Your task to perform on an android device: open app "LiveIn - Share Your Moment" (install if not already installed) and go to login screen Image 0: 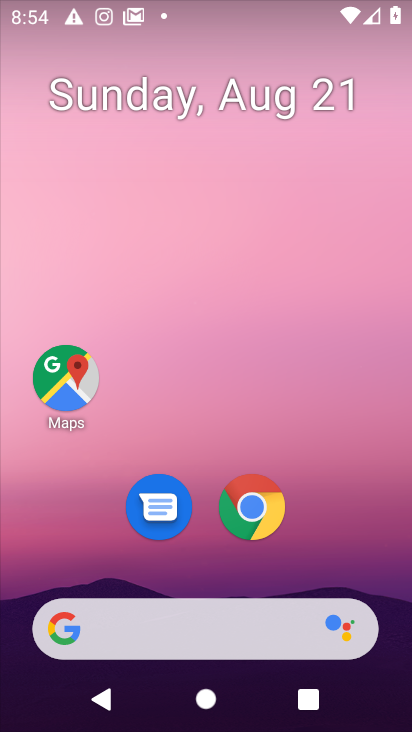
Step 0: drag from (212, 567) to (264, 127)
Your task to perform on an android device: open app "LiveIn - Share Your Moment" (install if not already installed) and go to login screen Image 1: 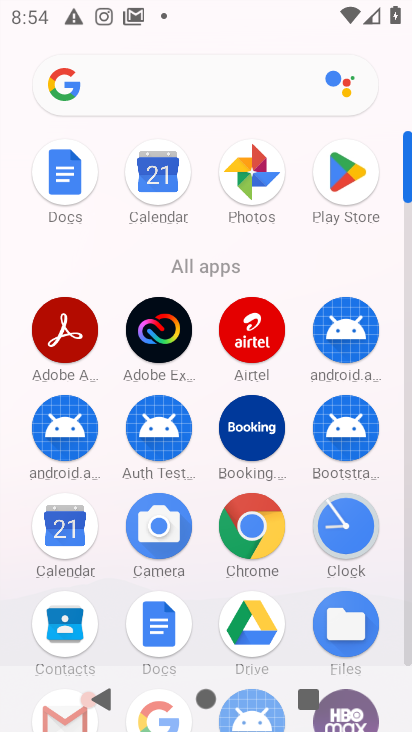
Step 1: click (338, 173)
Your task to perform on an android device: open app "LiveIn - Share Your Moment" (install if not already installed) and go to login screen Image 2: 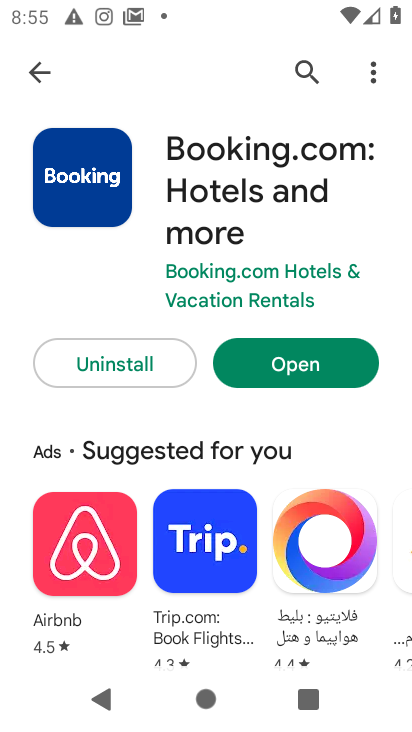
Step 2: click (311, 357)
Your task to perform on an android device: open app "LiveIn - Share Your Moment" (install if not already installed) and go to login screen Image 3: 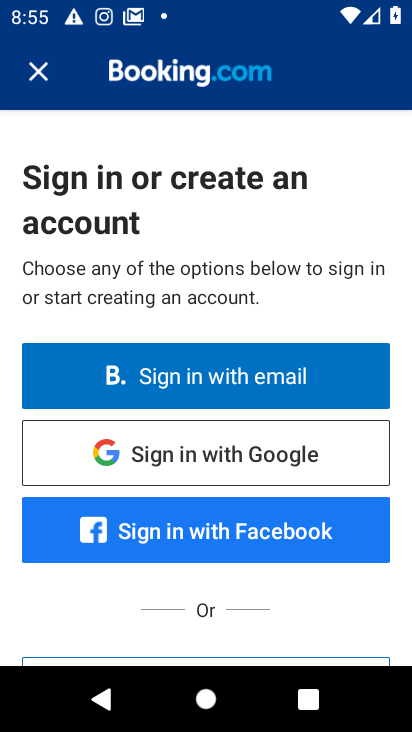
Step 3: task complete